Your task to perform on an android device: toggle location history Image 0: 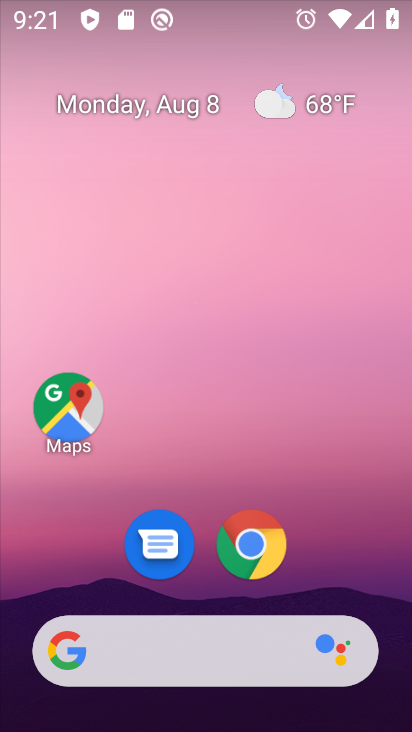
Step 0: press home button
Your task to perform on an android device: toggle location history Image 1: 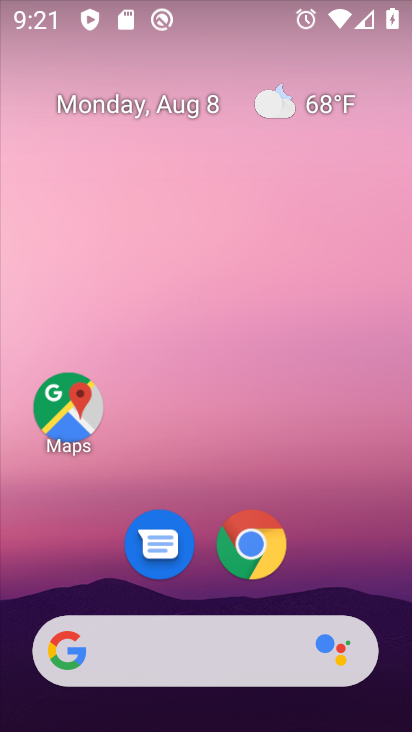
Step 1: drag from (323, 576) to (339, 36)
Your task to perform on an android device: toggle location history Image 2: 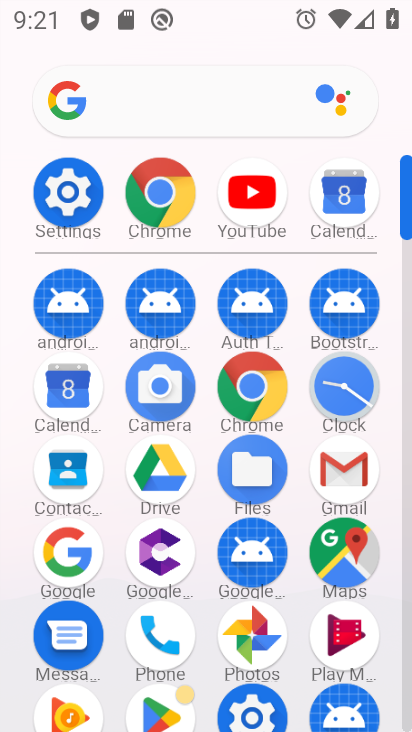
Step 2: click (64, 184)
Your task to perform on an android device: toggle location history Image 3: 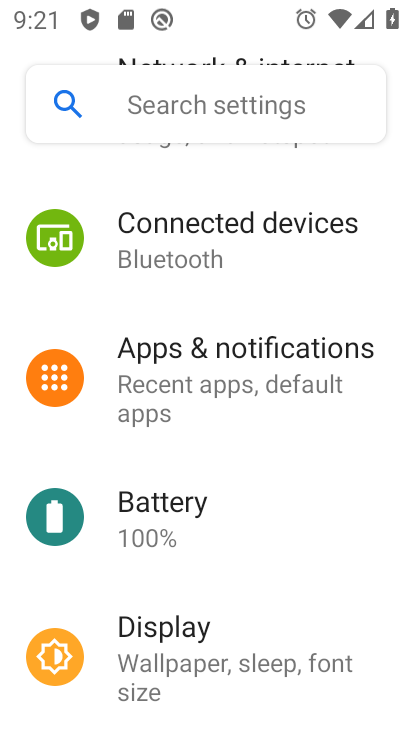
Step 3: drag from (229, 579) to (260, 144)
Your task to perform on an android device: toggle location history Image 4: 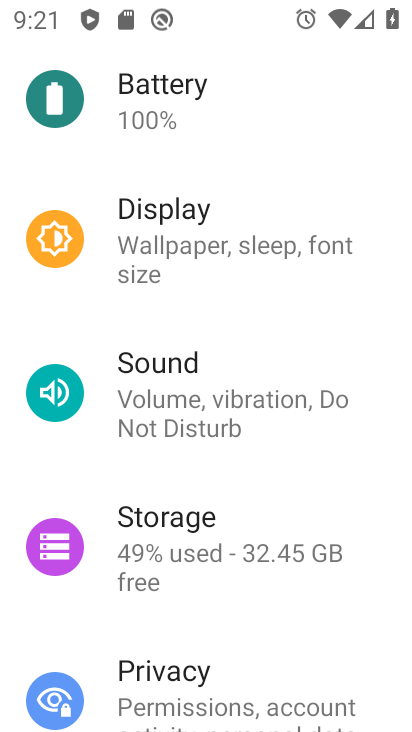
Step 4: drag from (243, 675) to (210, 184)
Your task to perform on an android device: toggle location history Image 5: 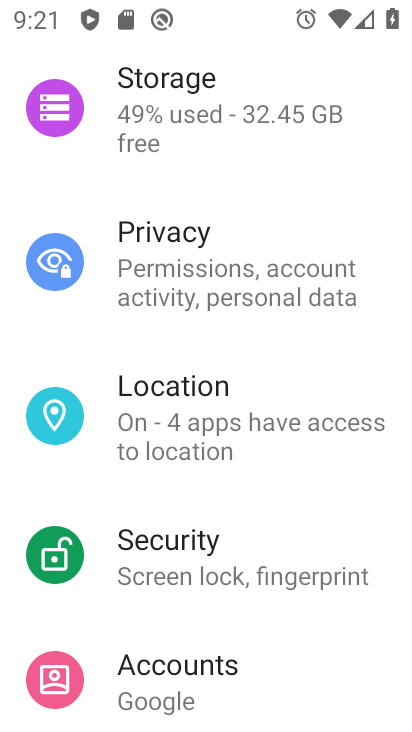
Step 5: click (252, 387)
Your task to perform on an android device: toggle location history Image 6: 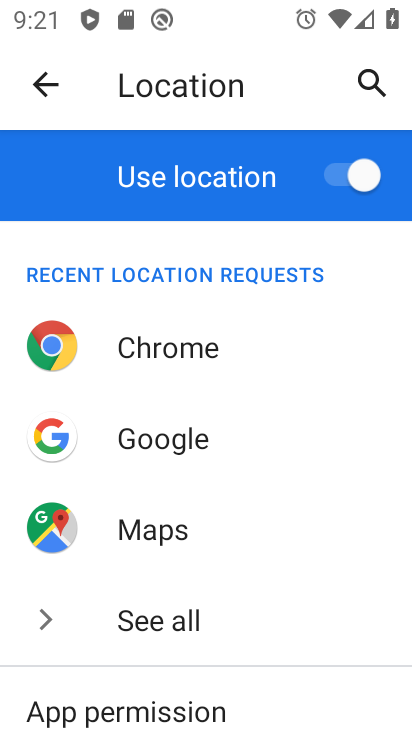
Step 6: drag from (229, 670) to (280, 150)
Your task to perform on an android device: toggle location history Image 7: 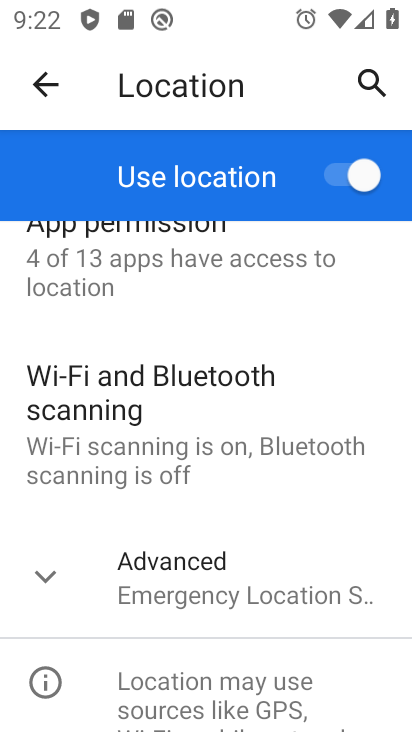
Step 7: click (46, 571)
Your task to perform on an android device: toggle location history Image 8: 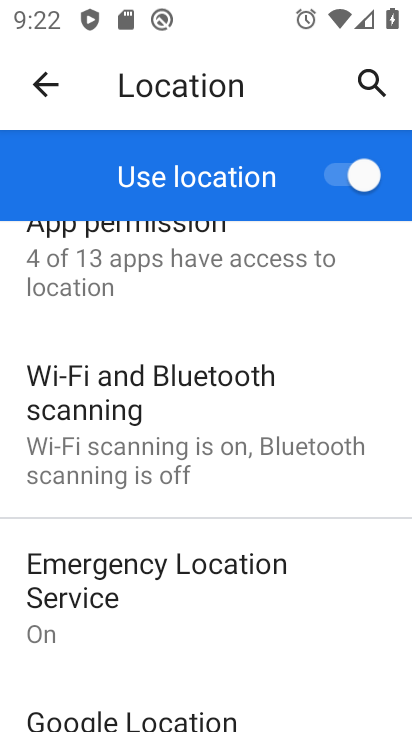
Step 8: drag from (228, 651) to (200, 258)
Your task to perform on an android device: toggle location history Image 9: 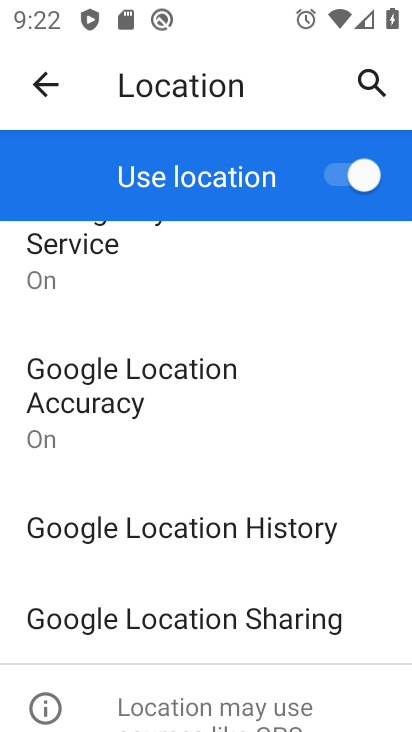
Step 9: click (347, 531)
Your task to perform on an android device: toggle location history Image 10: 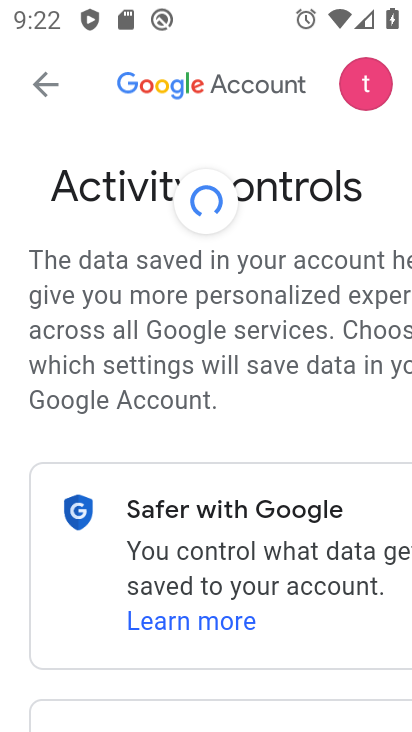
Step 10: task complete